Your task to perform on an android device: Open privacy settings Image 0: 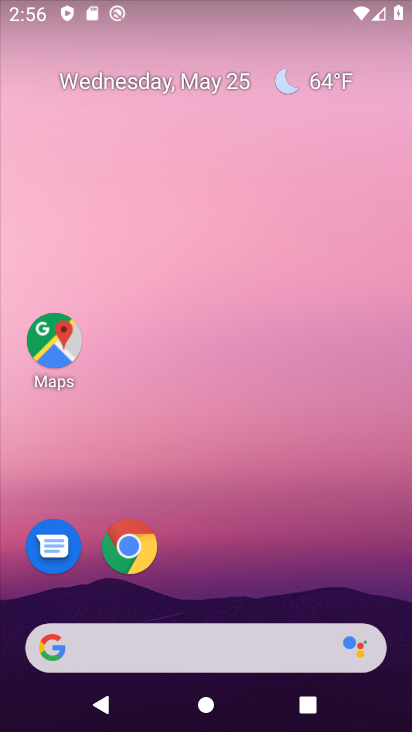
Step 0: drag from (199, 576) to (104, 182)
Your task to perform on an android device: Open privacy settings Image 1: 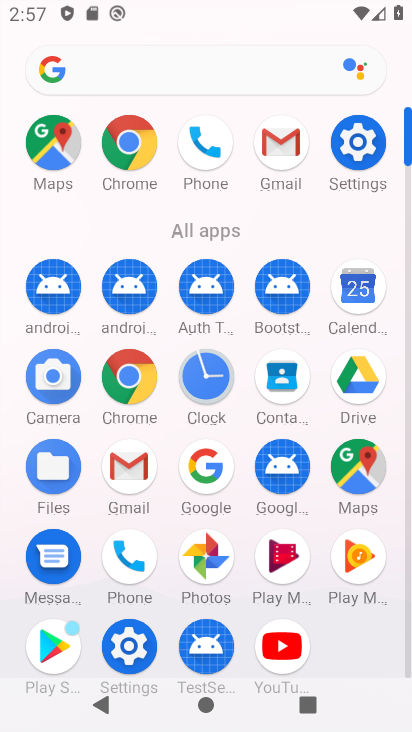
Step 1: click (352, 155)
Your task to perform on an android device: Open privacy settings Image 2: 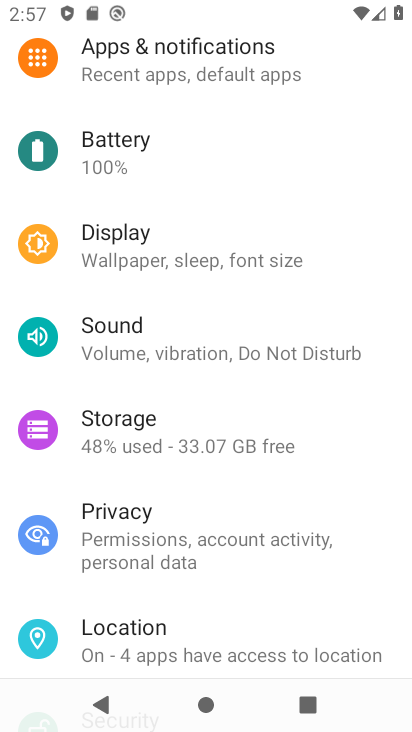
Step 2: click (140, 533)
Your task to perform on an android device: Open privacy settings Image 3: 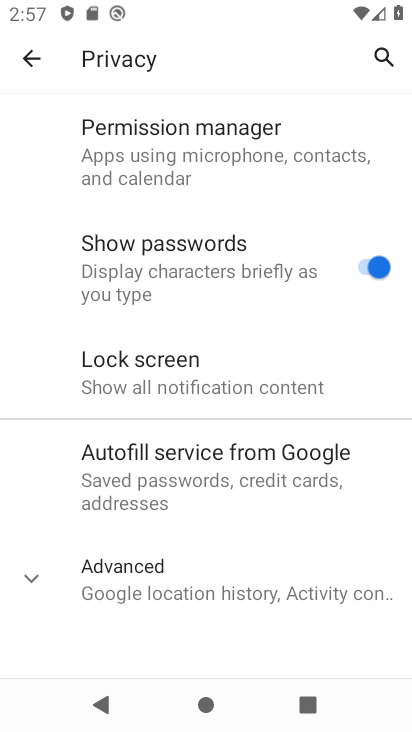
Step 3: click (137, 579)
Your task to perform on an android device: Open privacy settings Image 4: 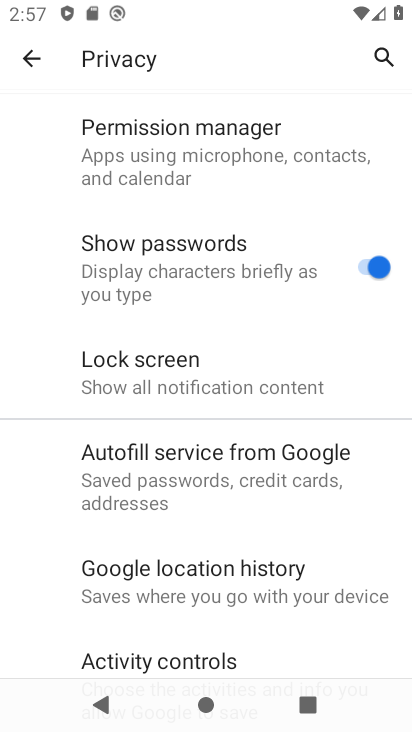
Step 4: task complete